Your task to perform on an android device: turn on sleep mode Image 0: 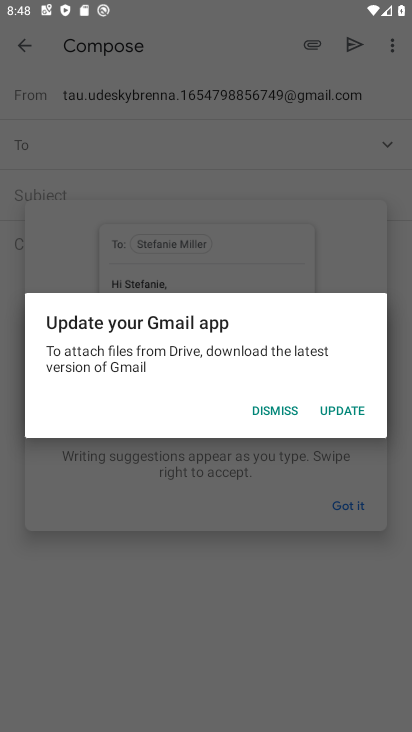
Step 0: press home button
Your task to perform on an android device: turn on sleep mode Image 1: 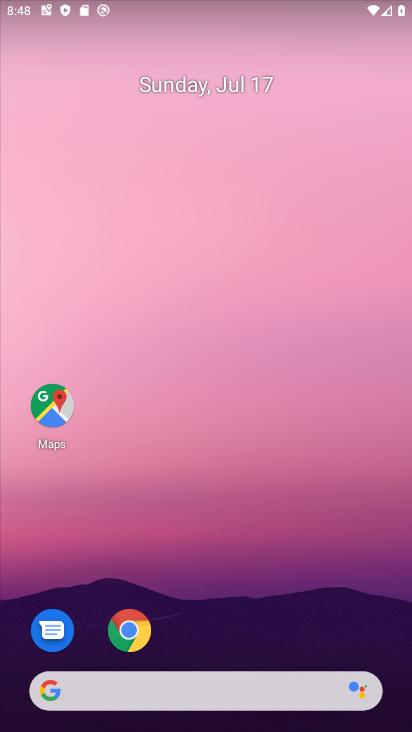
Step 1: drag from (174, 719) to (145, 65)
Your task to perform on an android device: turn on sleep mode Image 2: 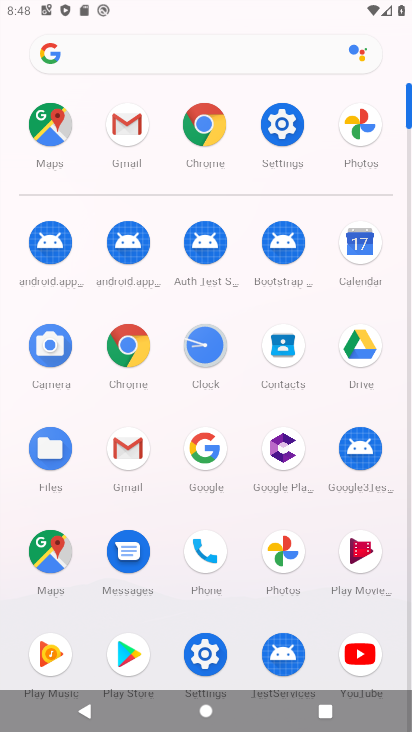
Step 2: click (277, 140)
Your task to perform on an android device: turn on sleep mode Image 3: 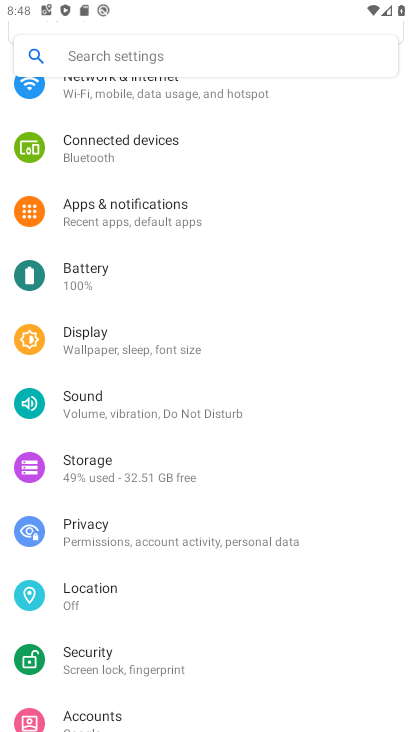
Step 3: click (150, 346)
Your task to perform on an android device: turn on sleep mode Image 4: 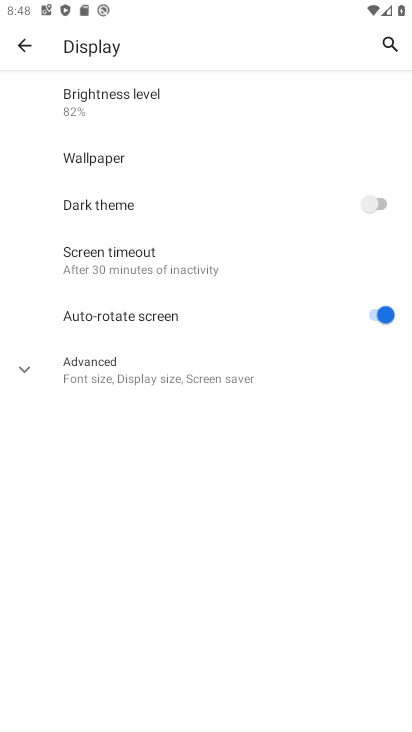
Step 4: task complete